Your task to perform on an android device: Go to CNN.com Image 0: 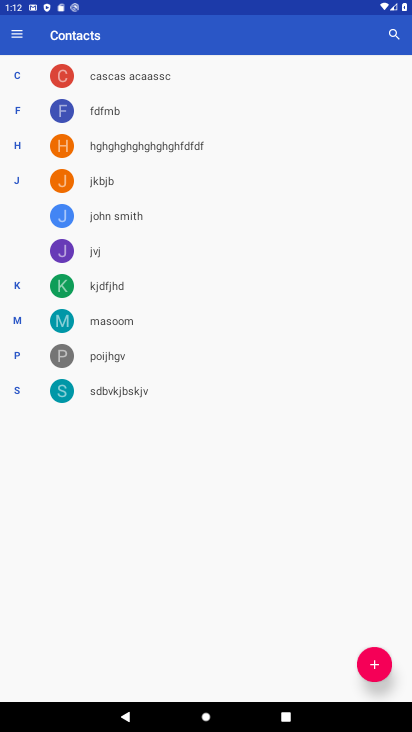
Step 0: press home button
Your task to perform on an android device: Go to CNN.com Image 1: 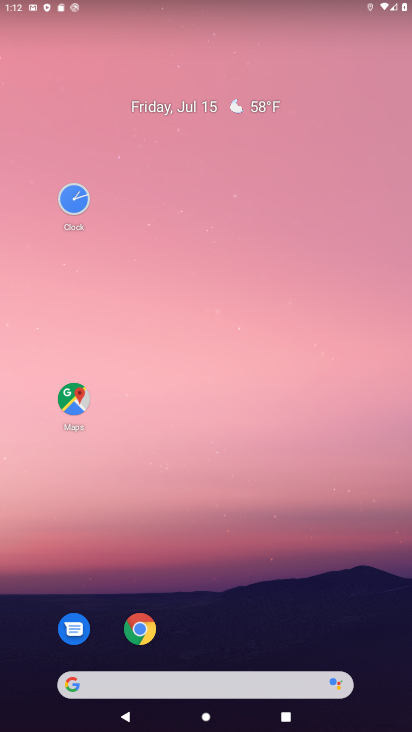
Step 1: click (138, 633)
Your task to perform on an android device: Go to CNN.com Image 2: 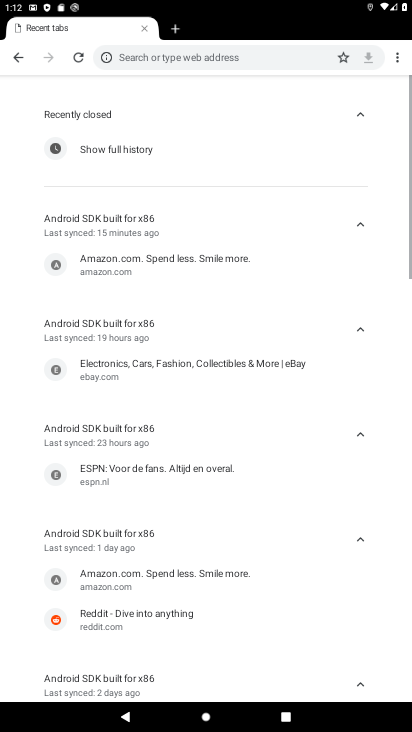
Step 2: click (176, 19)
Your task to perform on an android device: Go to CNN.com Image 3: 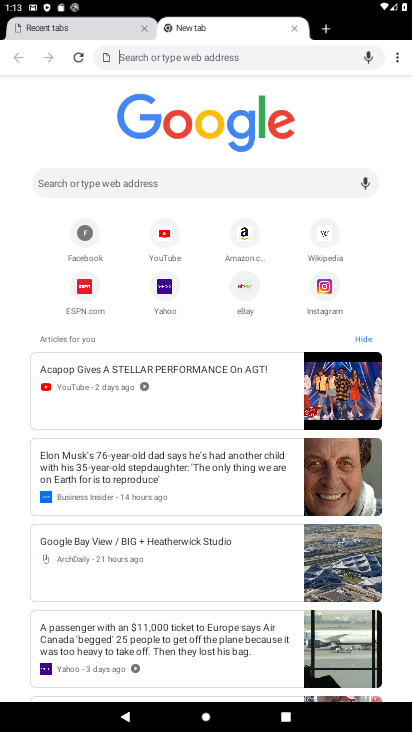
Step 3: click (227, 184)
Your task to perform on an android device: Go to CNN.com Image 4: 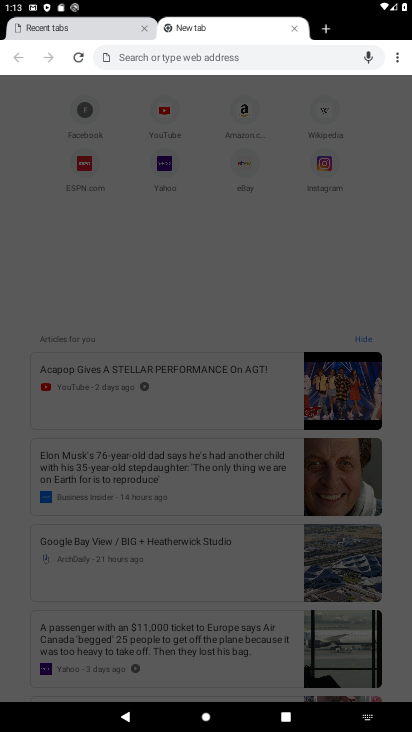
Step 4: type "cnn"
Your task to perform on an android device: Go to CNN.com Image 5: 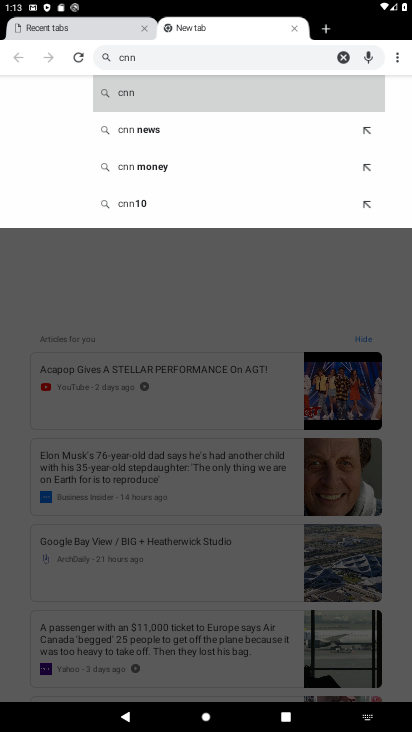
Step 5: click (170, 107)
Your task to perform on an android device: Go to CNN.com Image 6: 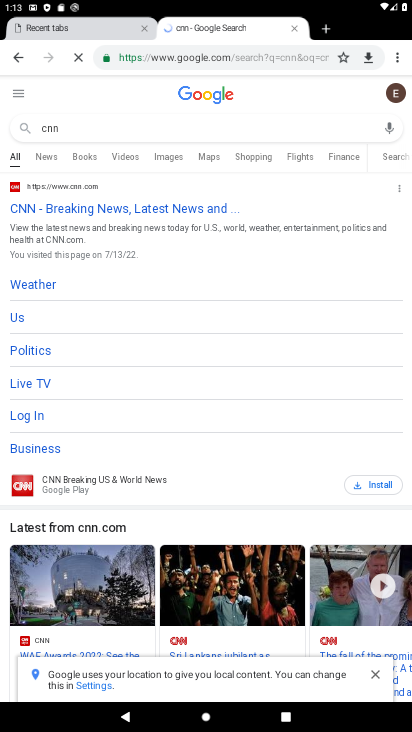
Step 6: click (87, 210)
Your task to perform on an android device: Go to CNN.com Image 7: 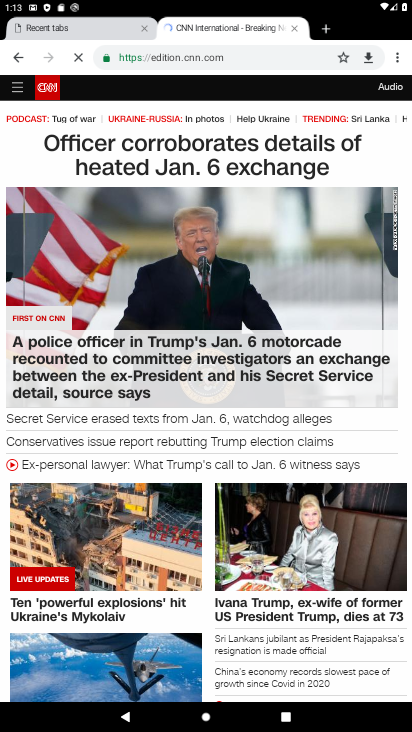
Step 7: task complete